Your task to perform on an android device: Go to Google maps Image 0: 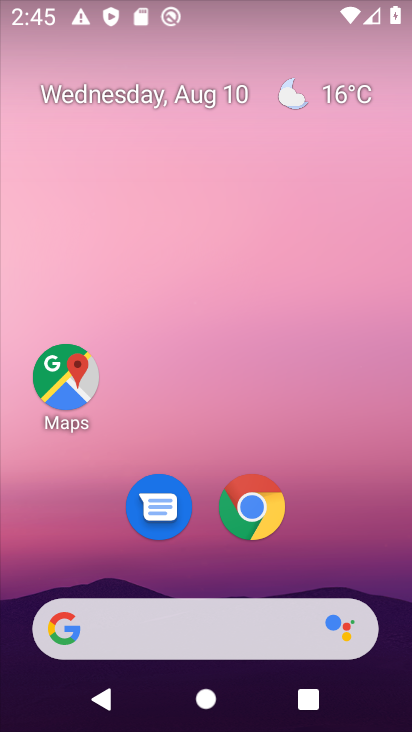
Step 0: click (69, 376)
Your task to perform on an android device: Go to Google maps Image 1: 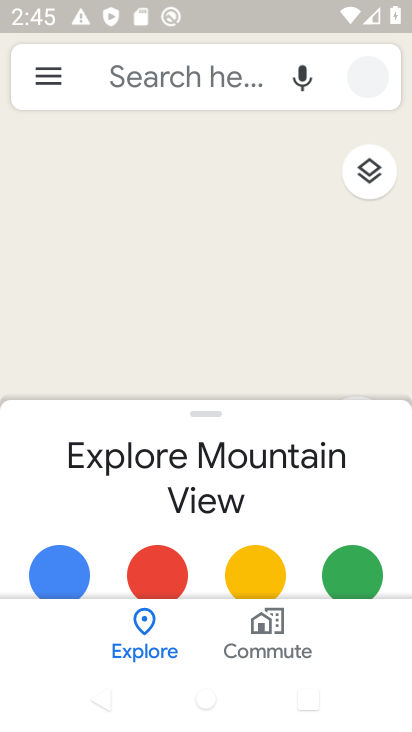
Step 1: task complete